Your task to perform on an android device: Open notification settings Image 0: 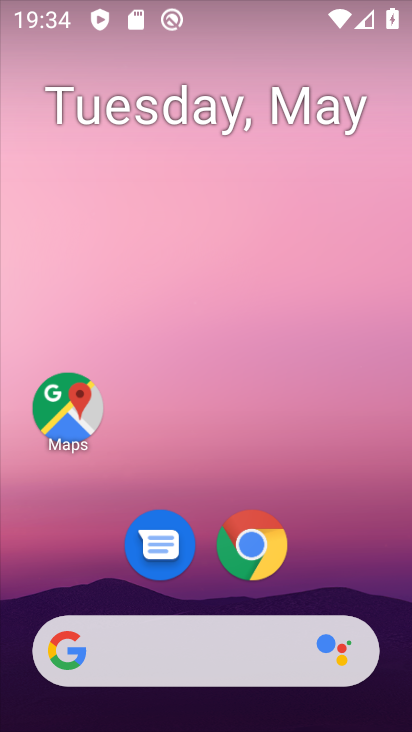
Step 0: drag from (339, 595) to (300, 9)
Your task to perform on an android device: Open notification settings Image 1: 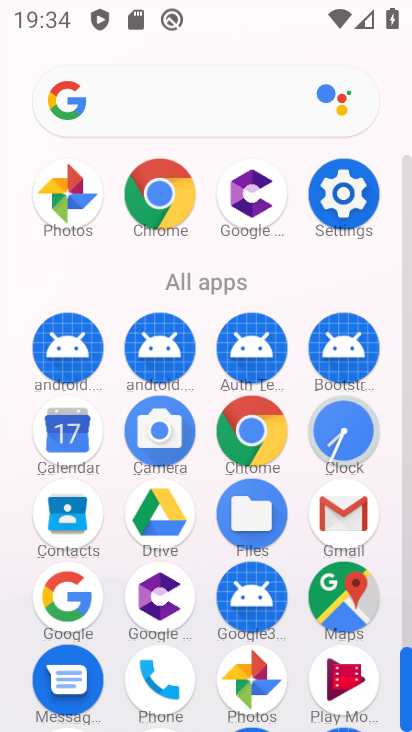
Step 1: click (360, 206)
Your task to perform on an android device: Open notification settings Image 2: 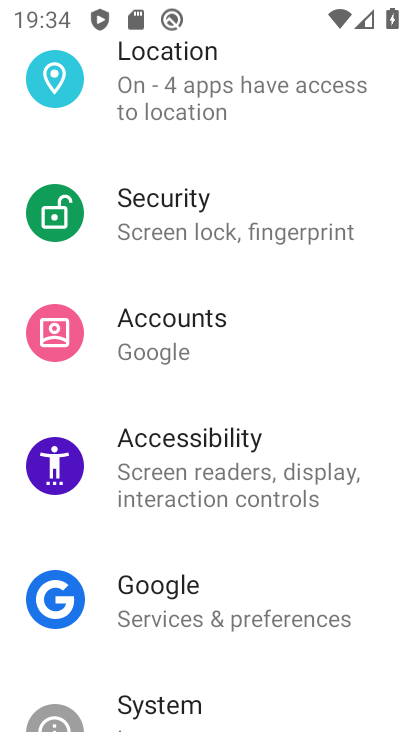
Step 2: drag from (199, 155) to (161, 587)
Your task to perform on an android device: Open notification settings Image 3: 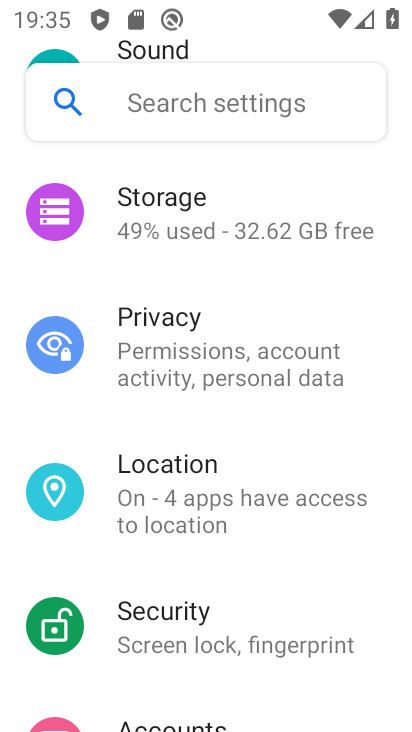
Step 3: drag from (174, 206) to (170, 709)
Your task to perform on an android device: Open notification settings Image 4: 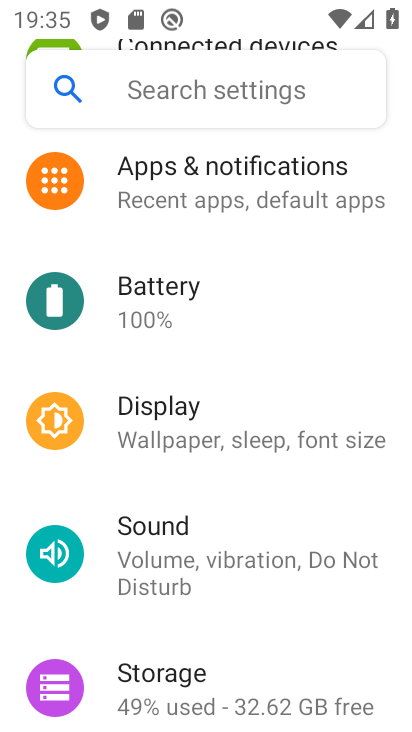
Step 4: click (217, 185)
Your task to perform on an android device: Open notification settings Image 5: 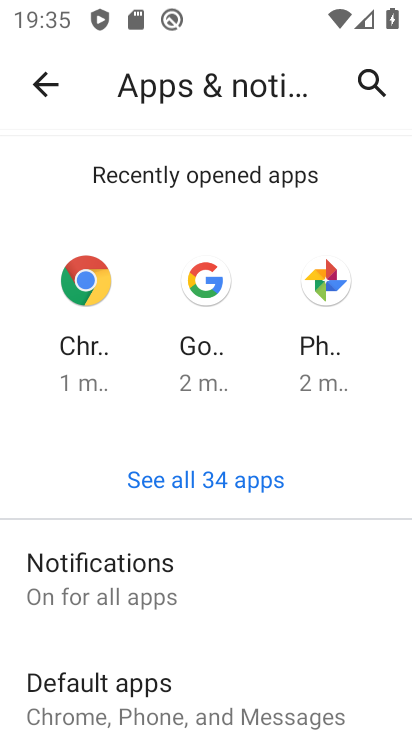
Step 5: click (100, 555)
Your task to perform on an android device: Open notification settings Image 6: 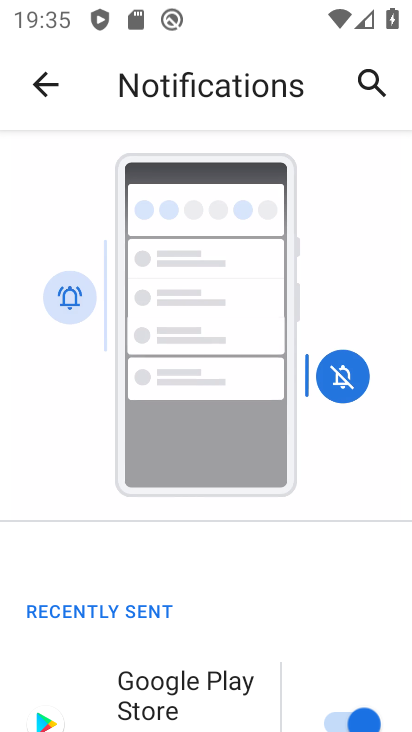
Step 6: task complete